Your task to perform on an android device: move an email to a new category in the gmail app Image 0: 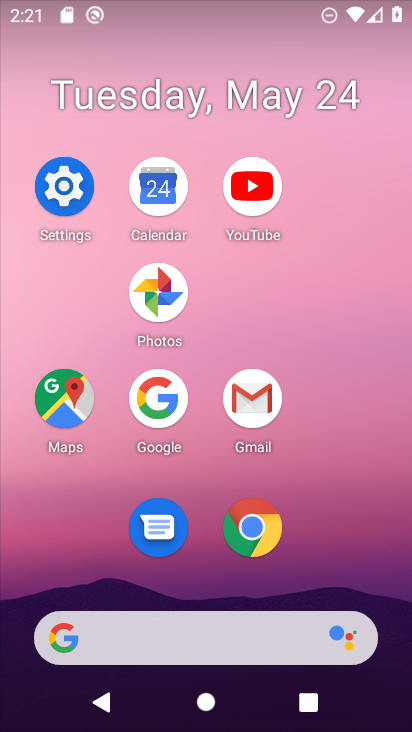
Step 0: click (250, 404)
Your task to perform on an android device: move an email to a new category in the gmail app Image 1: 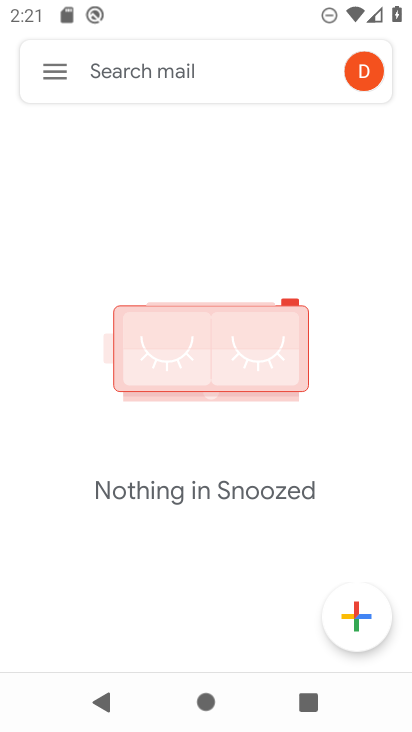
Step 1: click (64, 55)
Your task to perform on an android device: move an email to a new category in the gmail app Image 2: 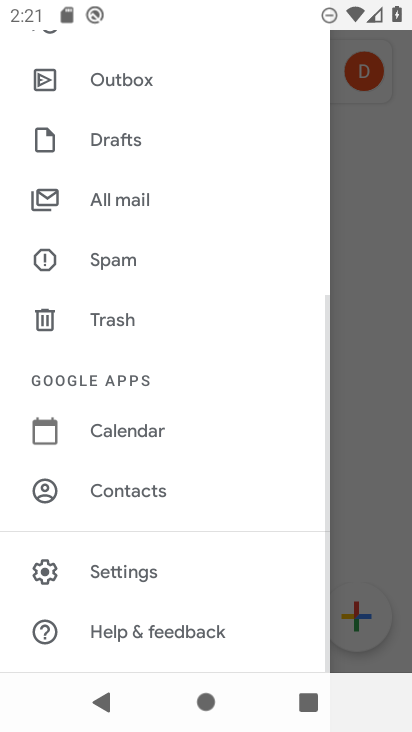
Step 2: drag from (156, 515) to (176, 182)
Your task to perform on an android device: move an email to a new category in the gmail app Image 3: 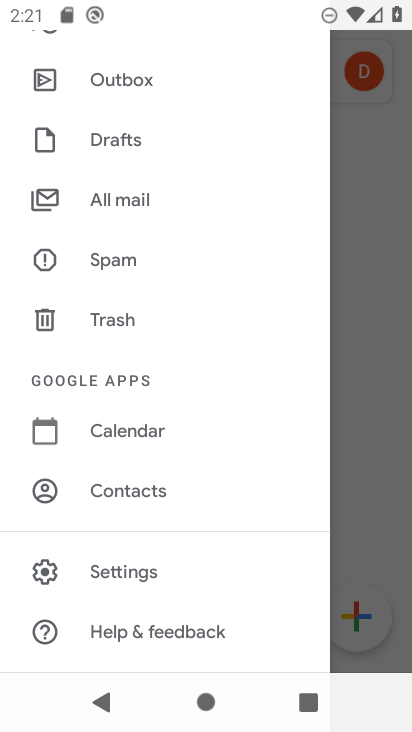
Step 3: click (148, 201)
Your task to perform on an android device: move an email to a new category in the gmail app Image 4: 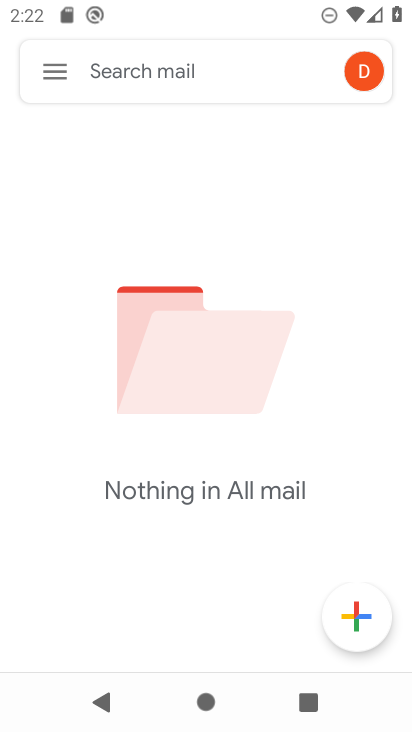
Step 4: task complete